Your task to perform on an android device: change your default location settings in chrome Image 0: 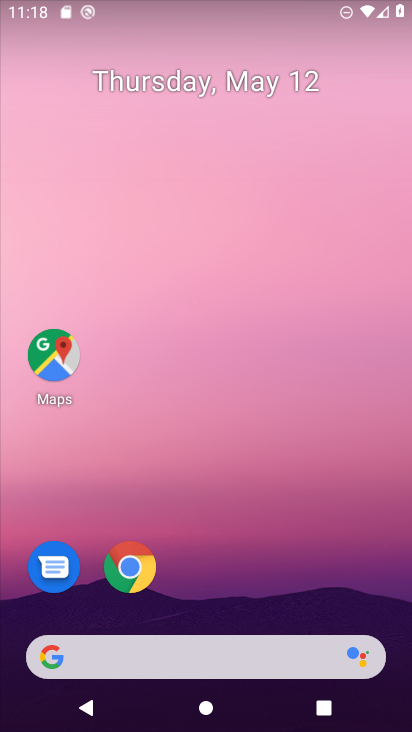
Step 0: press home button
Your task to perform on an android device: change your default location settings in chrome Image 1: 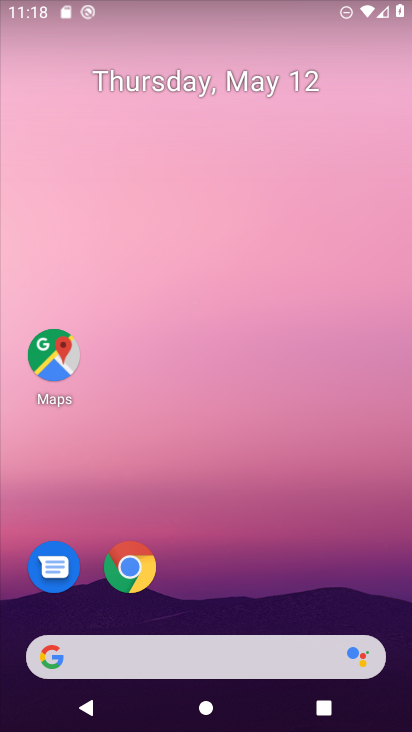
Step 1: drag from (236, 578) to (294, 115)
Your task to perform on an android device: change your default location settings in chrome Image 2: 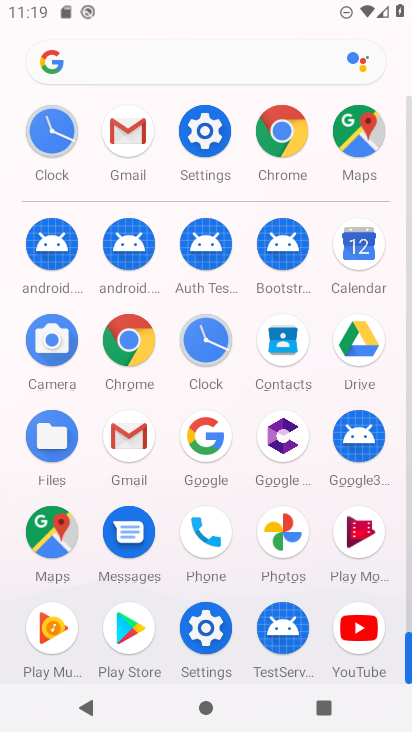
Step 2: click (289, 146)
Your task to perform on an android device: change your default location settings in chrome Image 3: 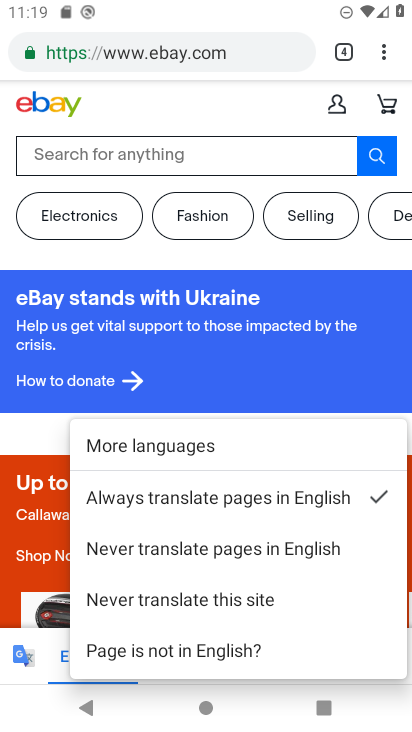
Step 3: drag from (266, 577) to (257, 407)
Your task to perform on an android device: change your default location settings in chrome Image 4: 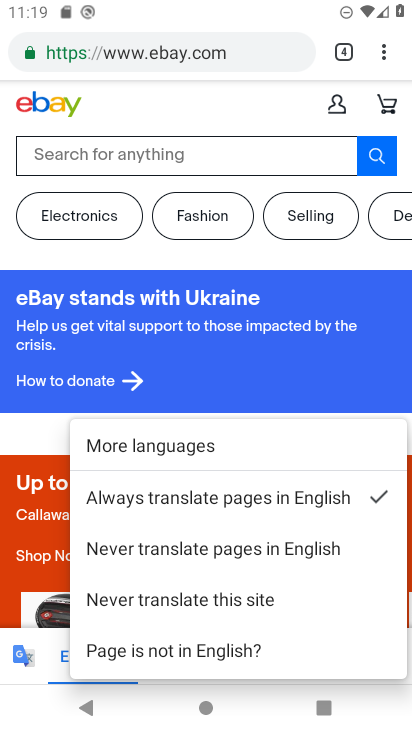
Step 4: click (310, 280)
Your task to perform on an android device: change your default location settings in chrome Image 5: 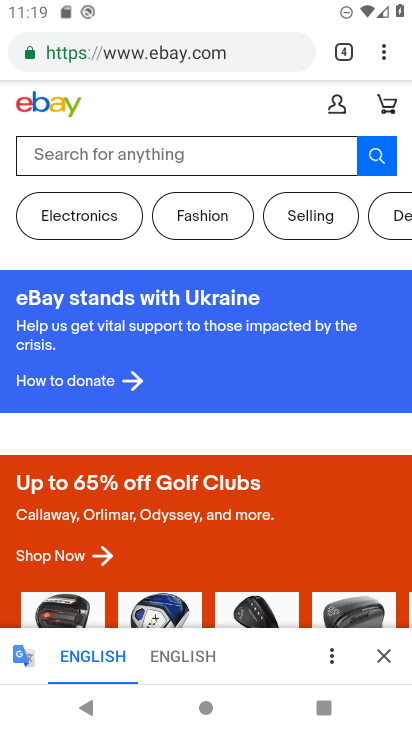
Step 5: click (388, 53)
Your task to perform on an android device: change your default location settings in chrome Image 6: 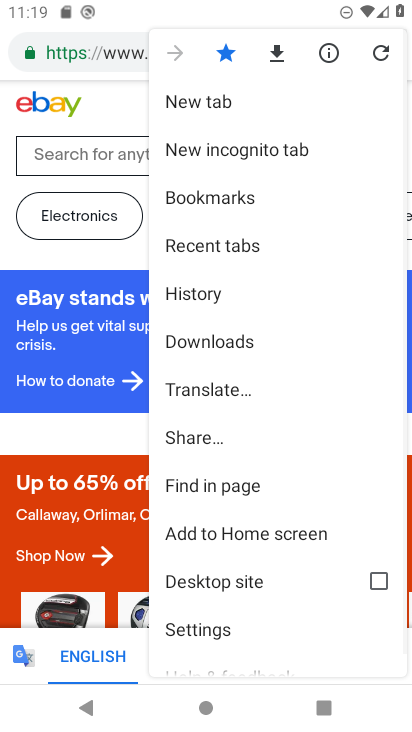
Step 6: click (227, 636)
Your task to perform on an android device: change your default location settings in chrome Image 7: 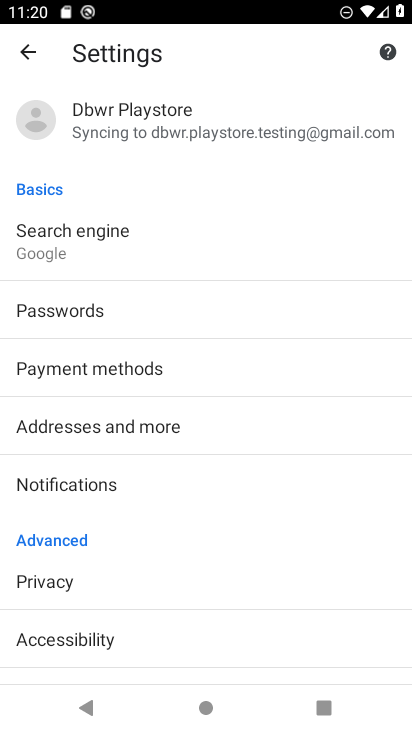
Step 7: drag from (212, 540) to (241, 304)
Your task to perform on an android device: change your default location settings in chrome Image 8: 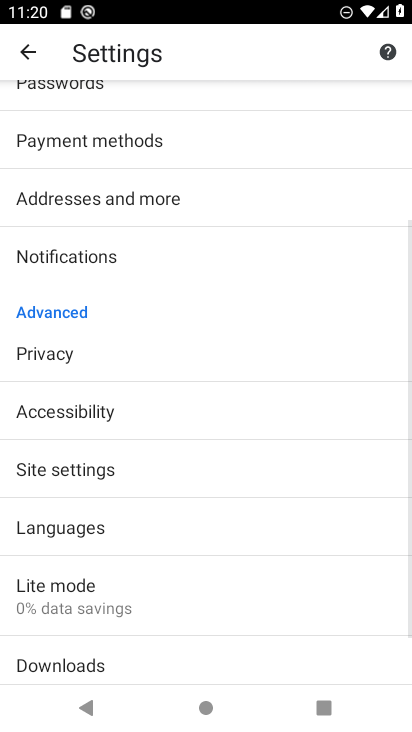
Step 8: drag from (227, 355) to (187, 663)
Your task to perform on an android device: change your default location settings in chrome Image 9: 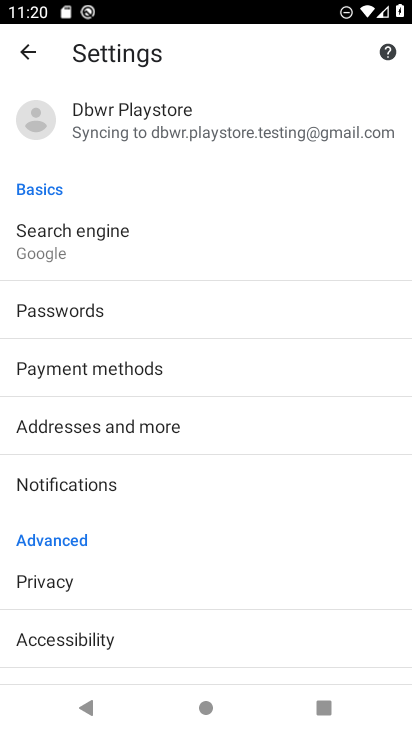
Step 9: drag from (146, 579) to (201, 304)
Your task to perform on an android device: change your default location settings in chrome Image 10: 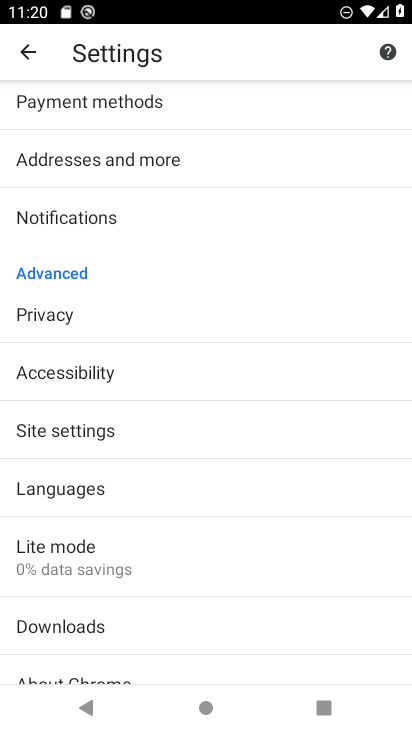
Step 10: click (121, 430)
Your task to perform on an android device: change your default location settings in chrome Image 11: 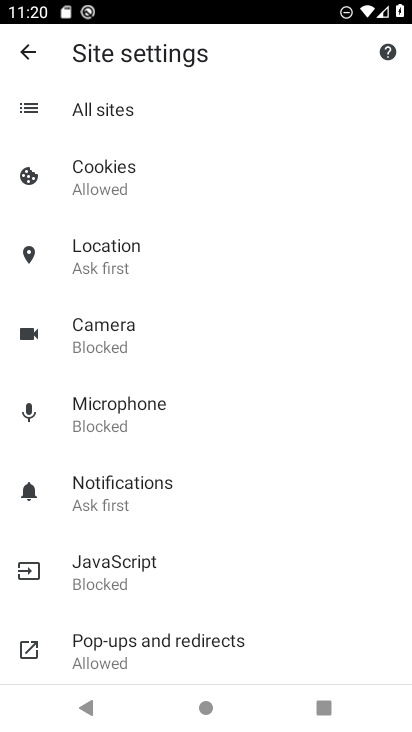
Step 11: click (148, 264)
Your task to perform on an android device: change your default location settings in chrome Image 12: 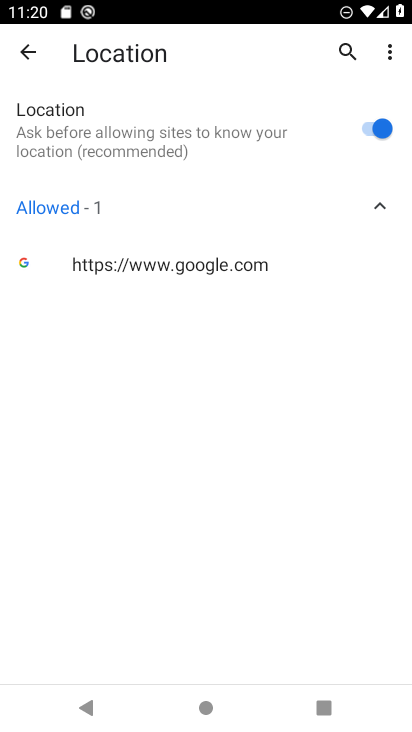
Step 12: click (359, 126)
Your task to perform on an android device: change your default location settings in chrome Image 13: 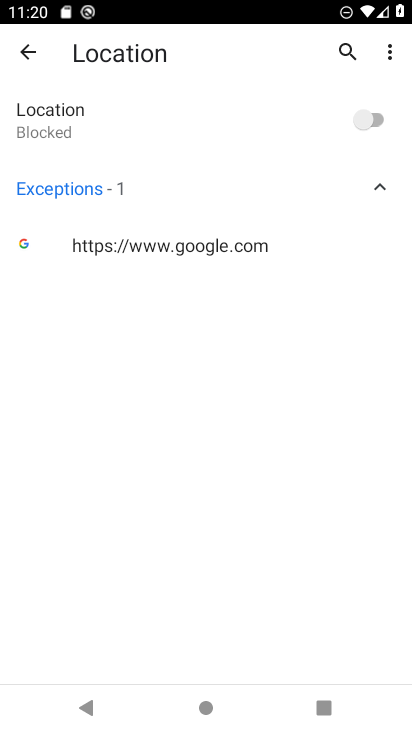
Step 13: task complete